Your task to perform on an android device: see sites visited before in the chrome app Image 0: 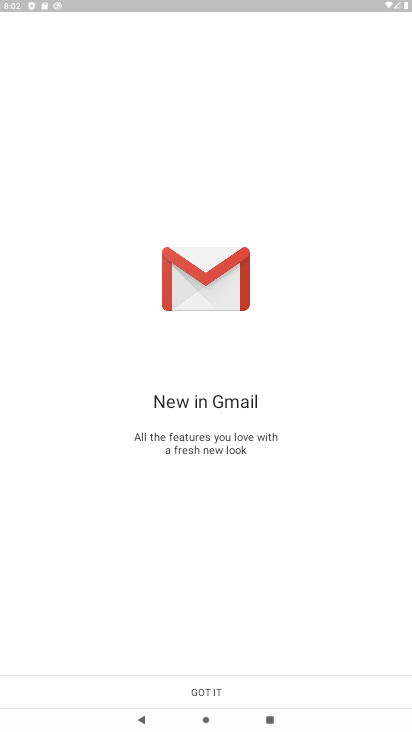
Step 0: press home button
Your task to perform on an android device: see sites visited before in the chrome app Image 1: 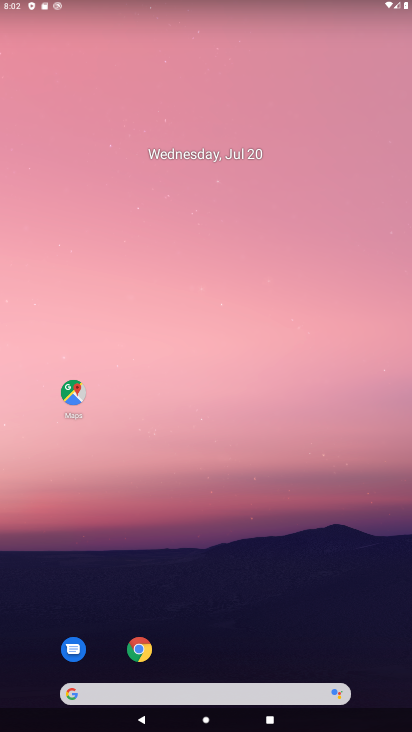
Step 1: drag from (224, 661) to (107, 59)
Your task to perform on an android device: see sites visited before in the chrome app Image 2: 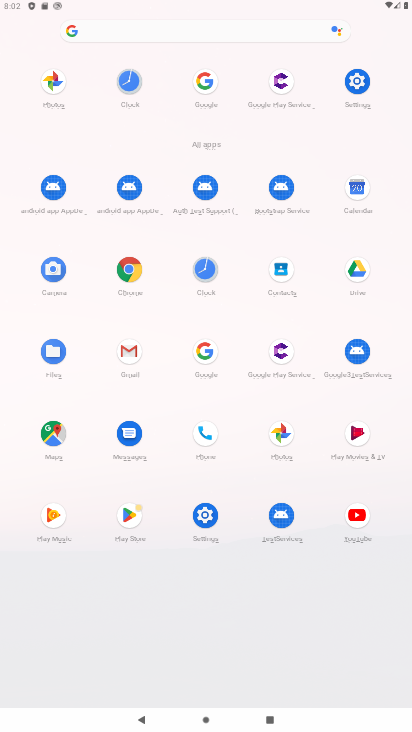
Step 2: click (134, 271)
Your task to perform on an android device: see sites visited before in the chrome app Image 3: 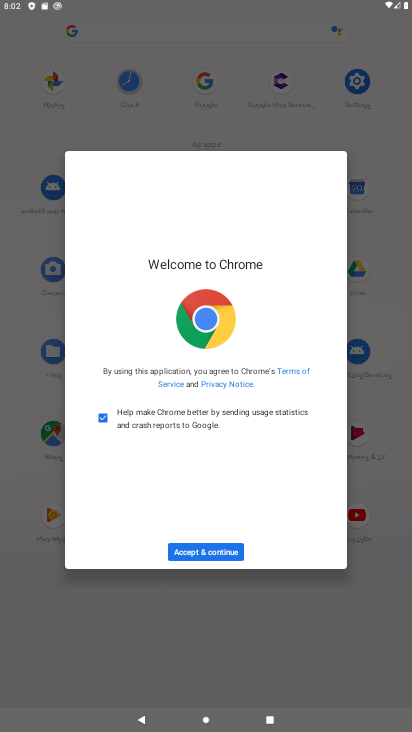
Step 3: click (187, 537)
Your task to perform on an android device: see sites visited before in the chrome app Image 4: 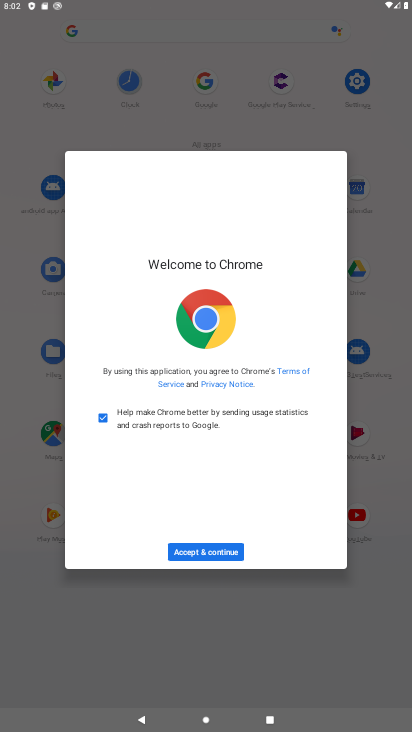
Step 4: click (198, 548)
Your task to perform on an android device: see sites visited before in the chrome app Image 5: 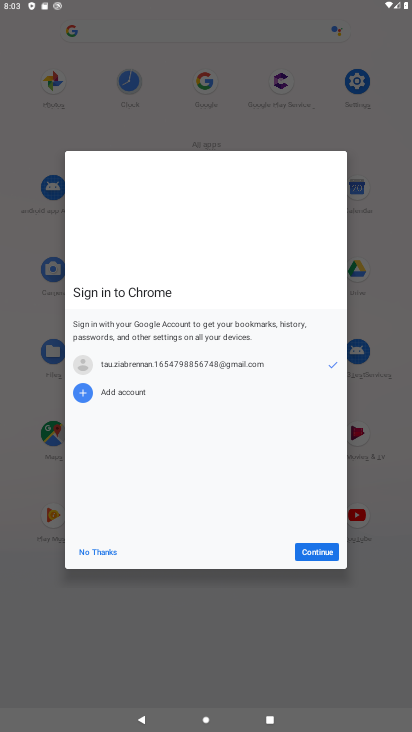
Step 5: click (330, 546)
Your task to perform on an android device: see sites visited before in the chrome app Image 6: 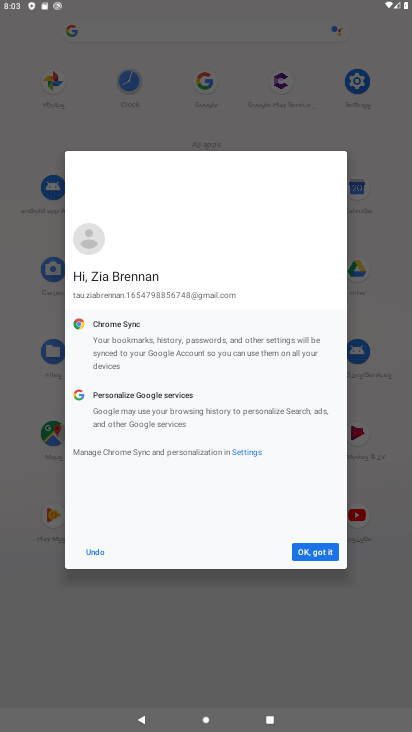
Step 6: click (306, 544)
Your task to perform on an android device: see sites visited before in the chrome app Image 7: 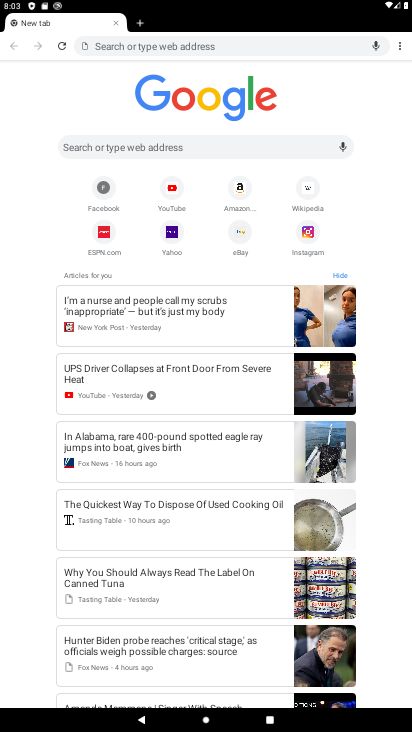
Step 7: click (401, 46)
Your task to perform on an android device: see sites visited before in the chrome app Image 8: 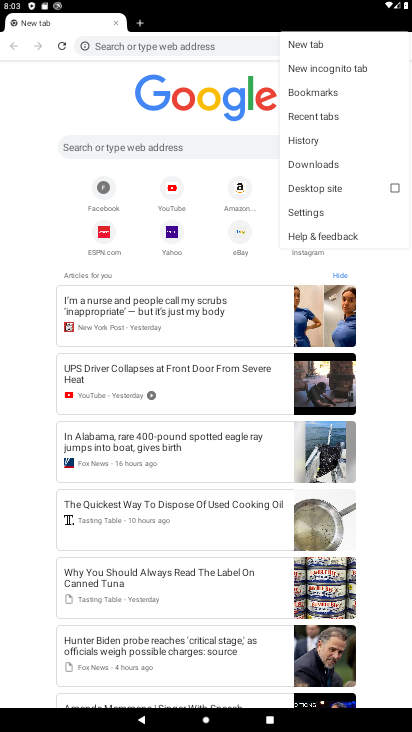
Step 8: click (298, 137)
Your task to perform on an android device: see sites visited before in the chrome app Image 9: 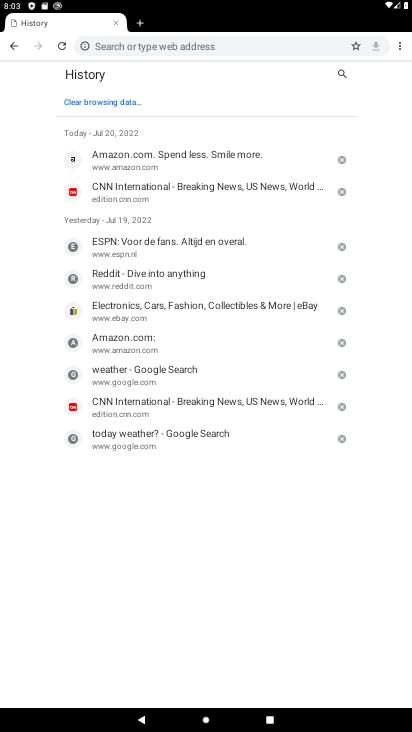
Step 9: task complete